Your task to perform on an android device: turn off data saver in the chrome app Image 0: 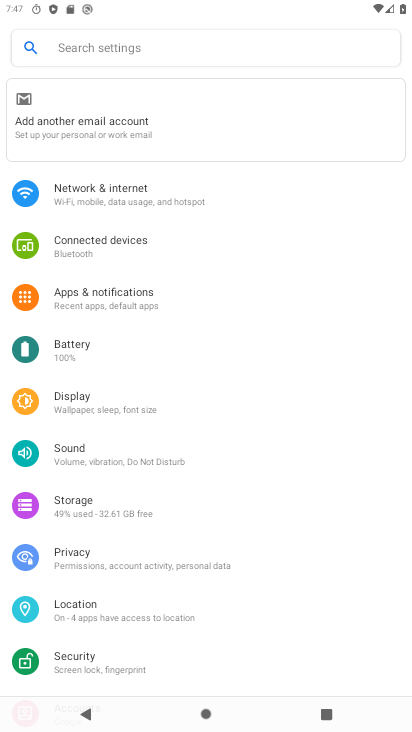
Step 0: press home button
Your task to perform on an android device: turn off data saver in the chrome app Image 1: 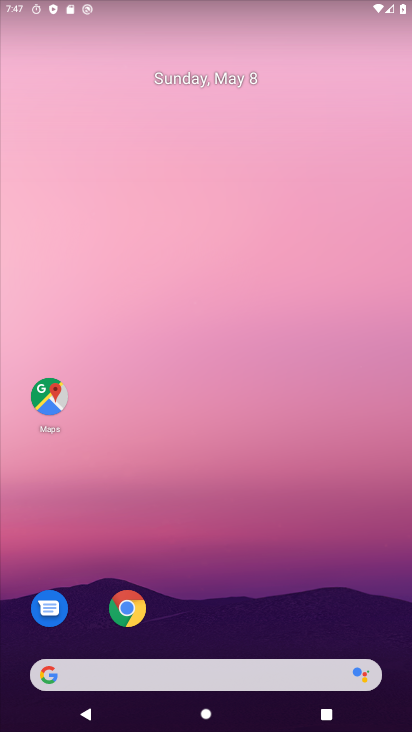
Step 1: click (125, 623)
Your task to perform on an android device: turn off data saver in the chrome app Image 2: 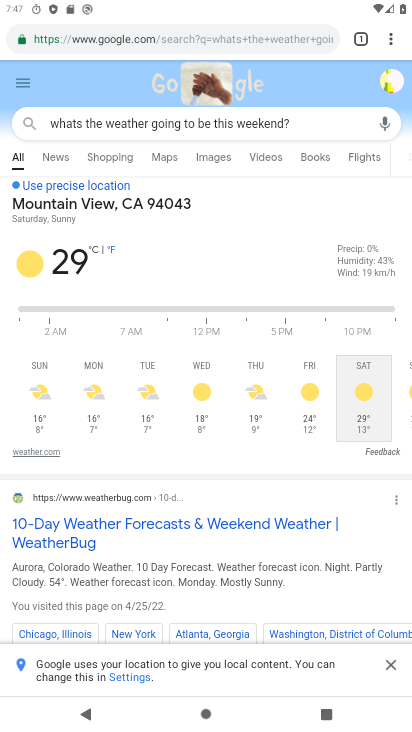
Step 2: drag from (389, 39) to (274, 436)
Your task to perform on an android device: turn off data saver in the chrome app Image 3: 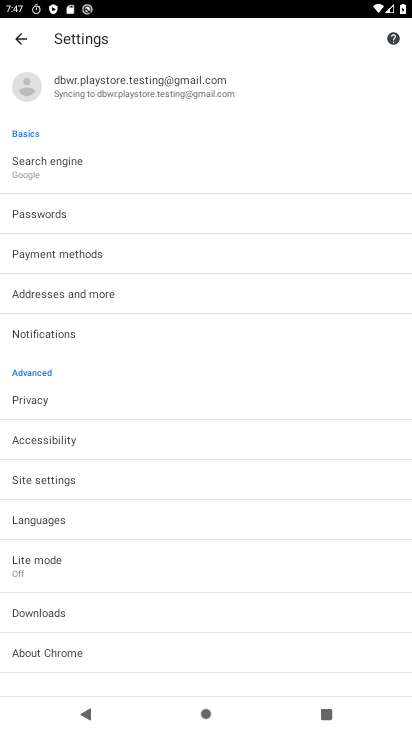
Step 3: click (77, 575)
Your task to perform on an android device: turn off data saver in the chrome app Image 4: 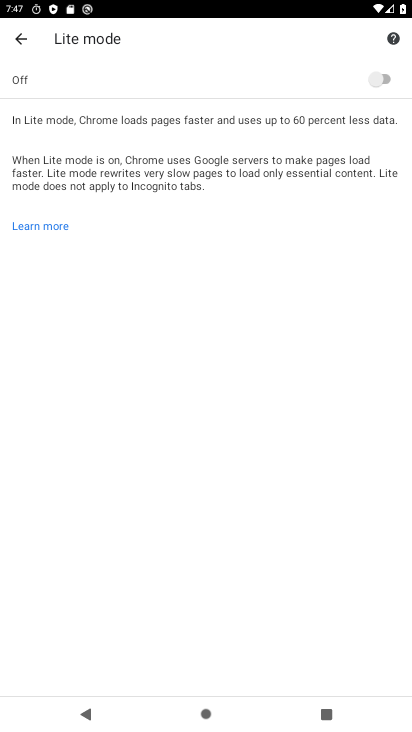
Step 4: click (389, 73)
Your task to perform on an android device: turn off data saver in the chrome app Image 5: 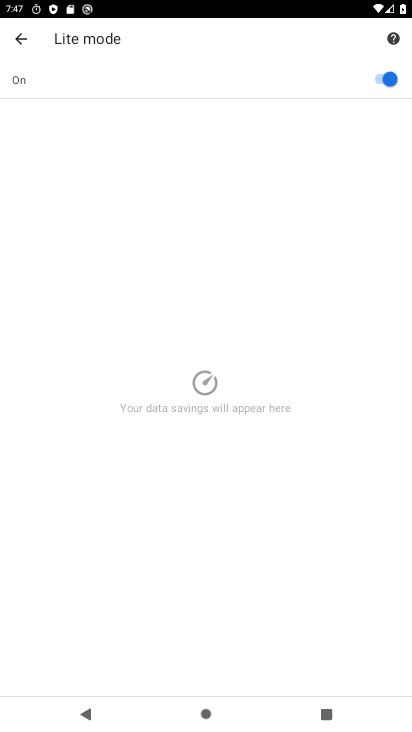
Step 5: click (384, 80)
Your task to perform on an android device: turn off data saver in the chrome app Image 6: 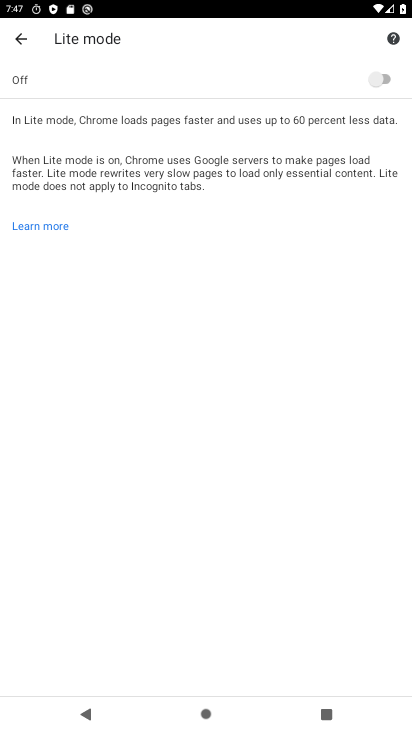
Step 6: task complete